Your task to perform on an android device: turn vacation reply on in the gmail app Image 0: 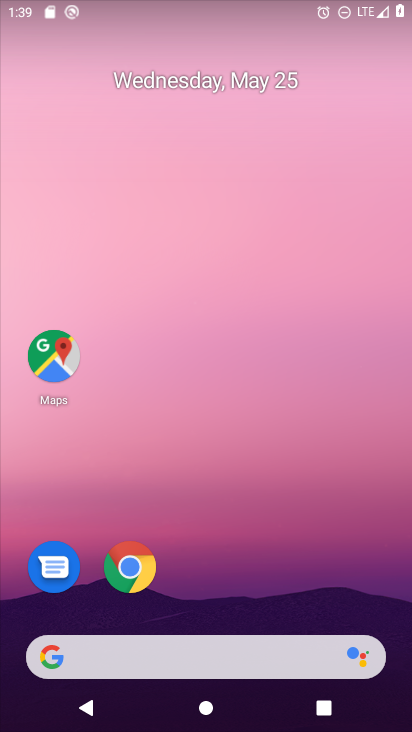
Step 0: drag from (392, 673) to (373, 282)
Your task to perform on an android device: turn vacation reply on in the gmail app Image 1: 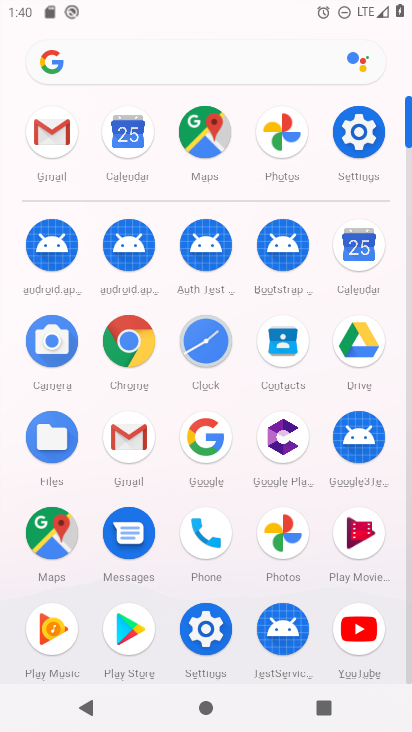
Step 1: click (119, 432)
Your task to perform on an android device: turn vacation reply on in the gmail app Image 2: 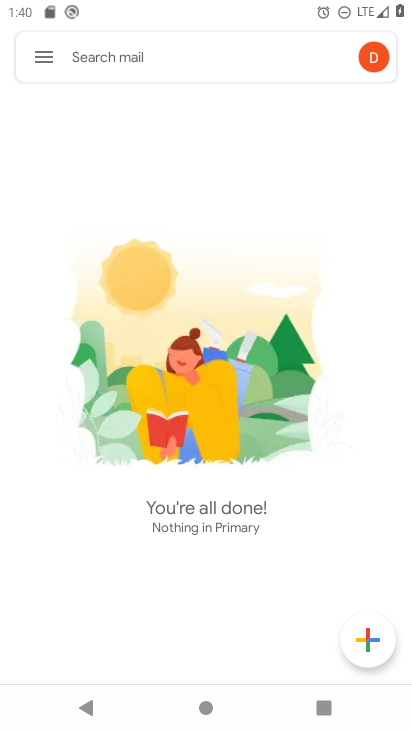
Step 2: click (32, 53)
Your task to perform on an android device: turn vacation reply on in the gmail app Image 3: 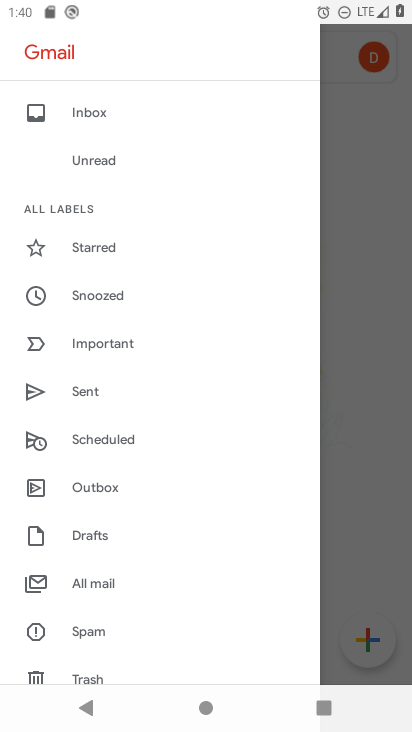
Step 3: drag from (197, 645) to (244, 242)
Your task to perform on an android device: turn vacation reply on in the gmail app Image 4: 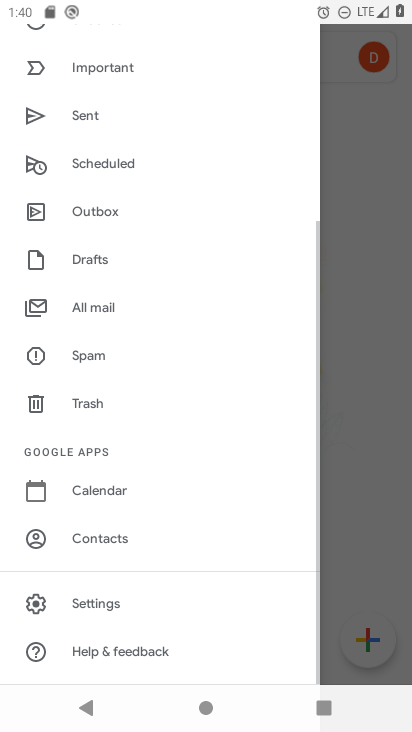
Step 4: click (100, 600)
Your task to perform on an android device: turn vacation reply on in the gmail app Image 5: 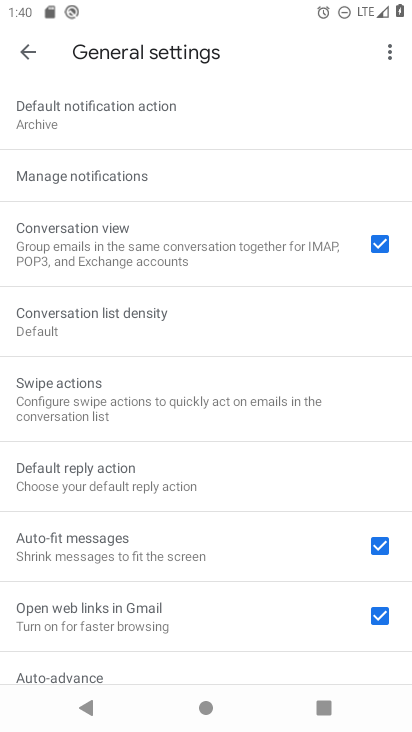
Step 5: drag from (246, 659) to (244, 331)
Your task to perform on an android device: turn vacation reply on in the gmail app Image 6: 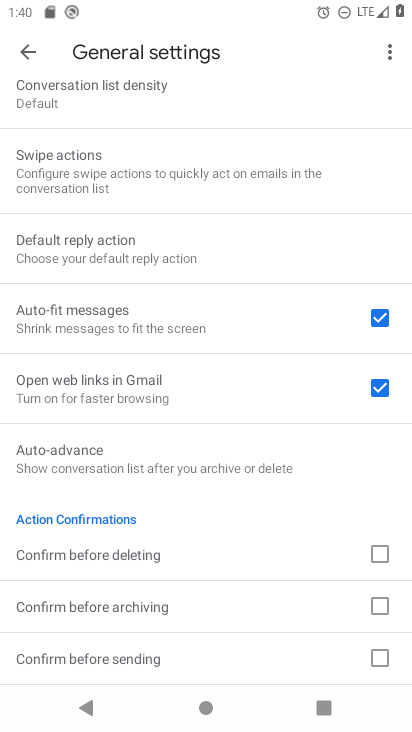
Step 6: click (25, 51)
Your task to perform on an android device: turn vacation reply on in the gmail app Image 7: 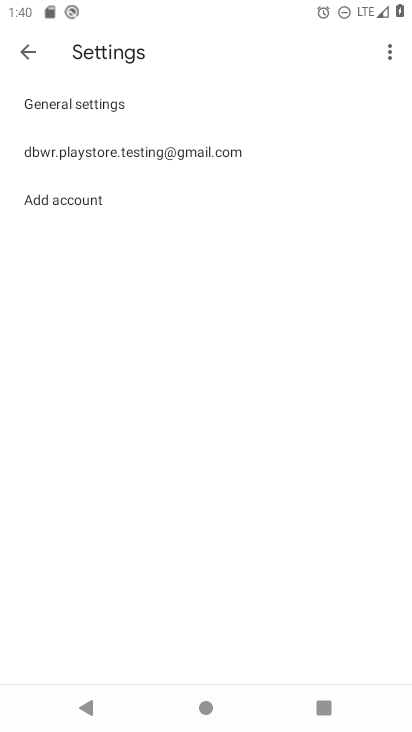
Step 7: click (133, 150)
Your task to perform on an android device: turn vacation reply on in the gmail app Image 8: 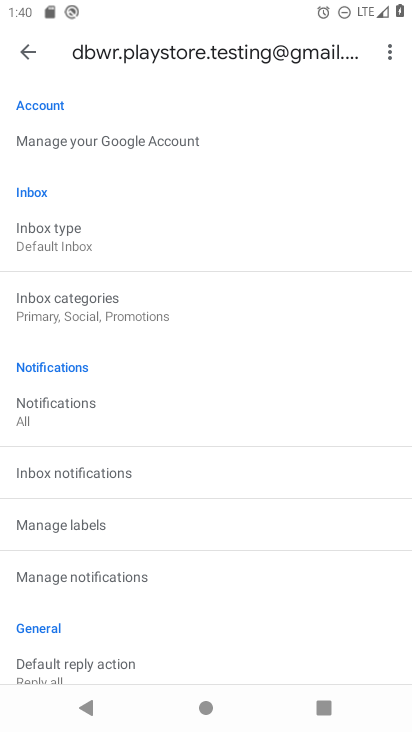
Step 8: drag from (237, 652) to (260, 257)
Your task to perform on an android device: turn vacation reply on in the gmail app Image 9: 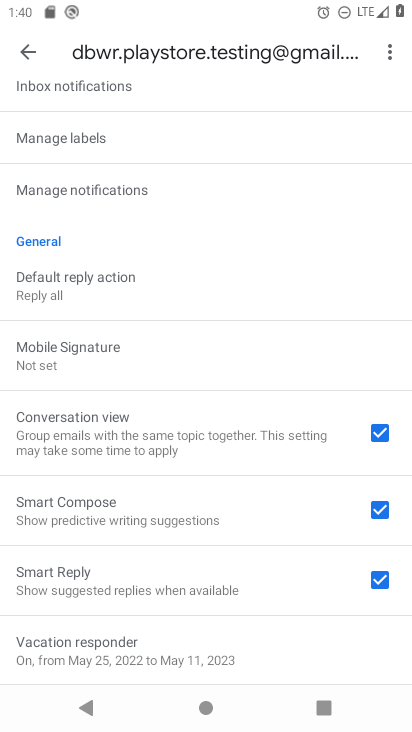
Step 9: drag from (277, 642) to (283, 272)
Your task to perform on an android device: turn vacation reply on in the gmail app Image 10: 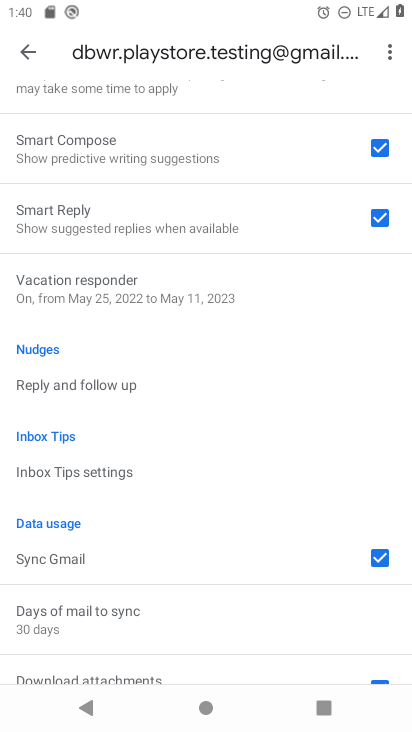
Step 10: drag from (256, 634) to (296, 328)
Your task to perform on an android device: turn vacation reply on in the gmail app Image 11: 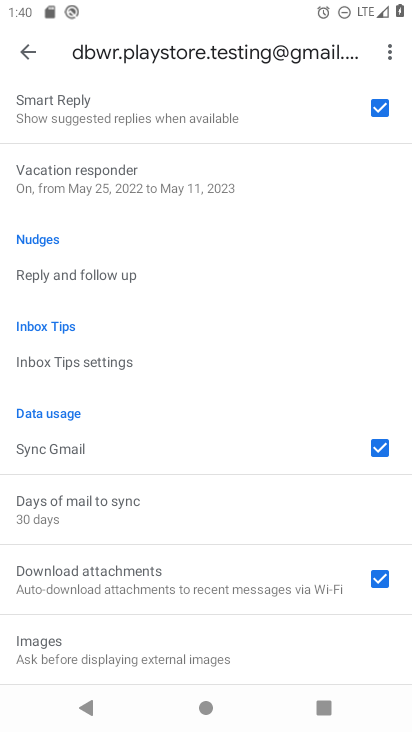
Step 11: click (90, 167)
Your task to perform on an android device: turn vacation reply on in the gmail app Image 12: 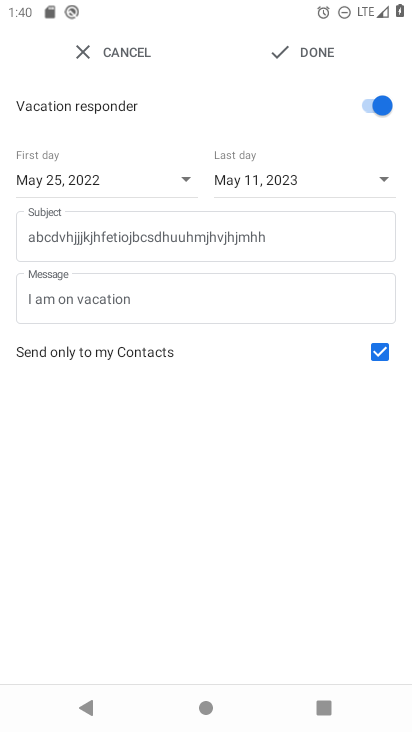
Step 12: task complete